Your task to perform on an android device: Do I have any events this weekend? Image 0: 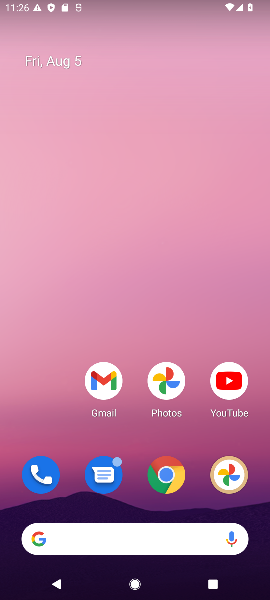
Step 0: drag from (132, 510) to (175, 100)
Your task to perform on an android device: Do I have any events this weekend? Image 1: 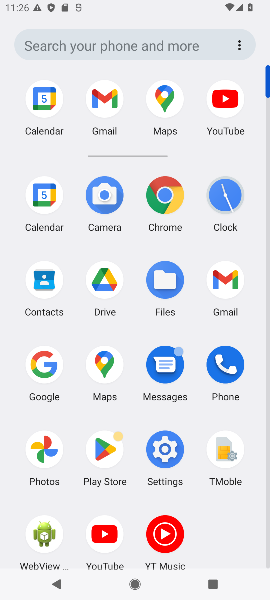
Step 1: click (43, 210)
Your task to perform on an android device: Do I have any events this weekend? Image 2: 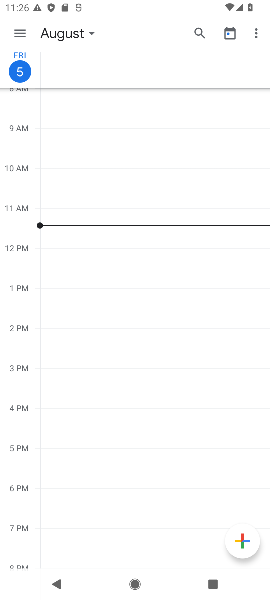
Step 2: click (17, 30)
Your task to perform on an android device: Do I have any events this weekend? Image 3: 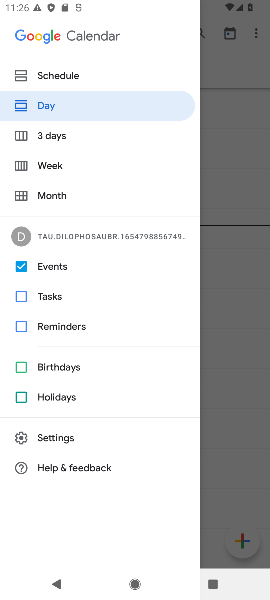
Step 3: click (53, 166)
Your task to perform on an android device: Do I have any events this weekend? Image 4: 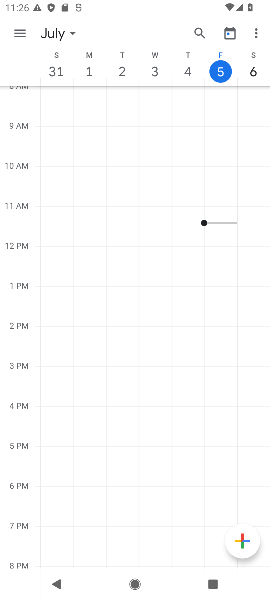
Step 4: task complete